Your task to perform on an android device: Go to network settings Image 0: 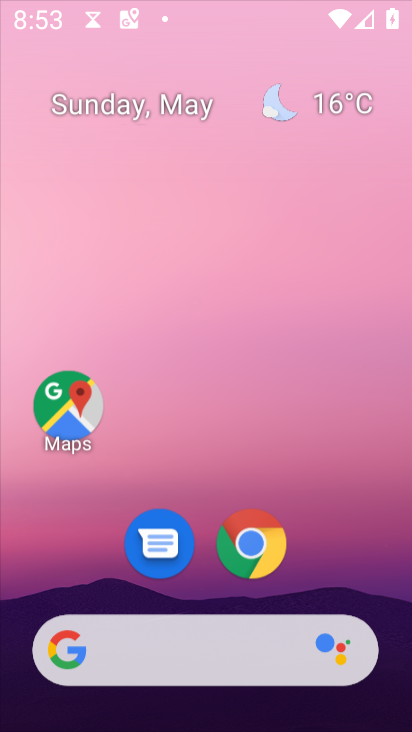
Step 0: drag from (319, 578) to (191, 169)
Your task to perform on an android device: Go to network settings Image 1: 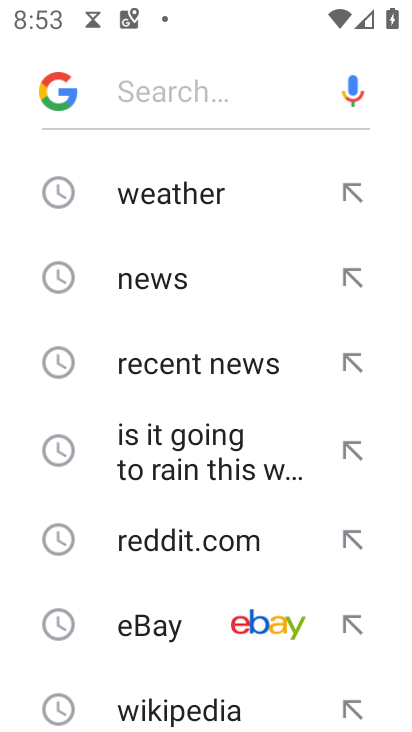
Step 1: press home button
Your task to perform on an android device: Go to network settings Image 2: 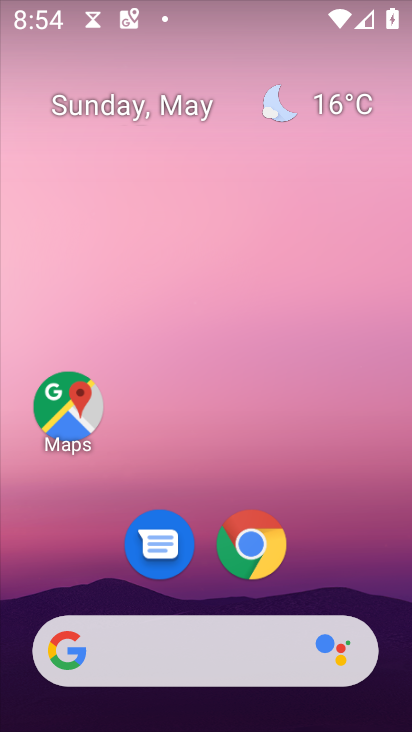
Step 2: drag from (320, 572) to (314, 144)
Your task to perform on an android device: Go to network settings Image 3: 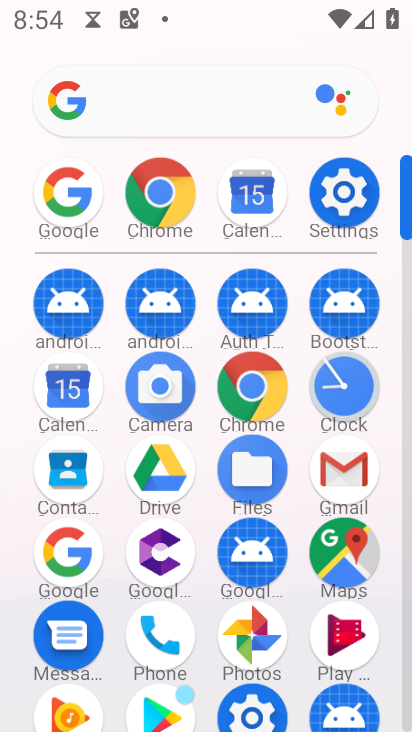
Step 3: click (344, 188)
Your task to perform on an android device: Go to network settings Image 4: 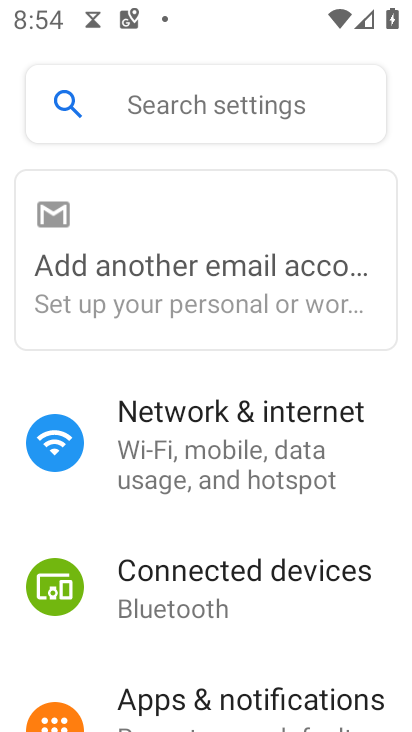
Step 4: click (143, 338)
Your task to perform on an android device: Go to network settings Image 5: 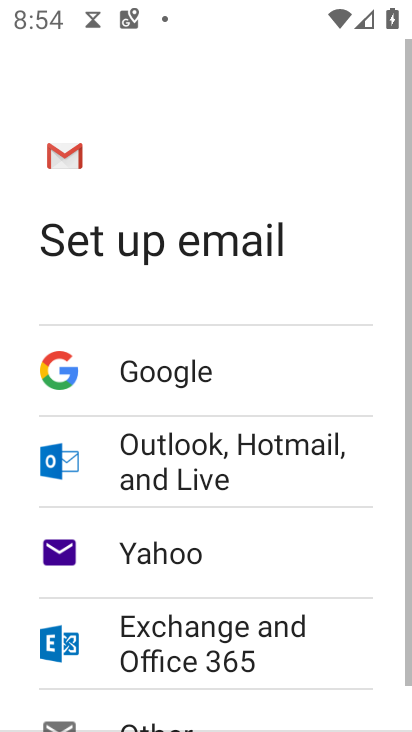
Step 5: press back button
Your task to perform on an android device: Go to network settings Image 6: 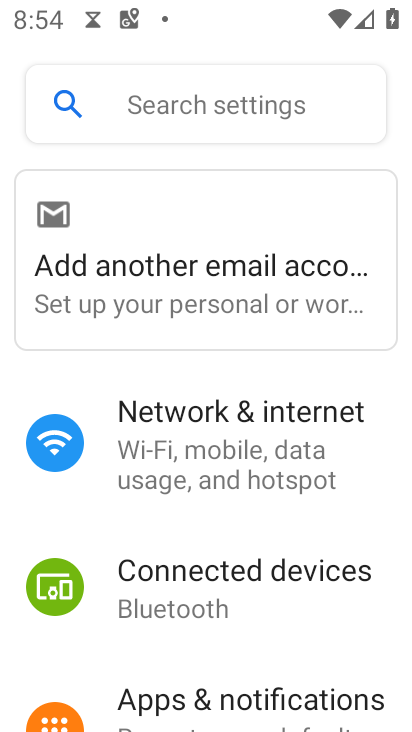
Step 6: click (260, 481)
Your task to perform on an android device: Go to network settings Image 7: 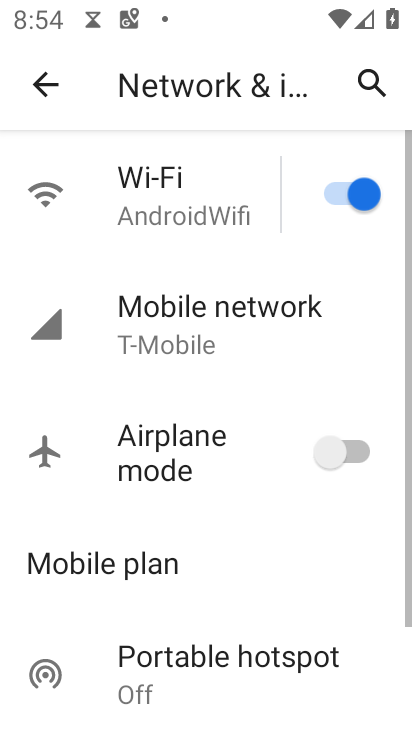
Step 7: drag from (286, 599) to (314, 264)
Your task to perform on an android device: Go to network settings Image 8: 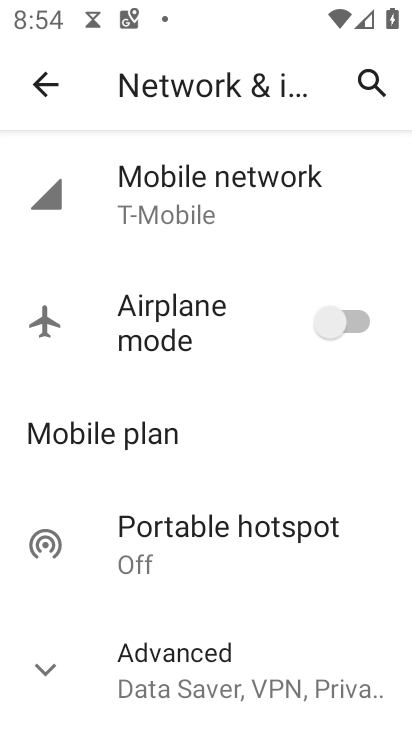
Step 8: click (262, 219)
Your task to perform on an android device: Go to network settings Image 9: 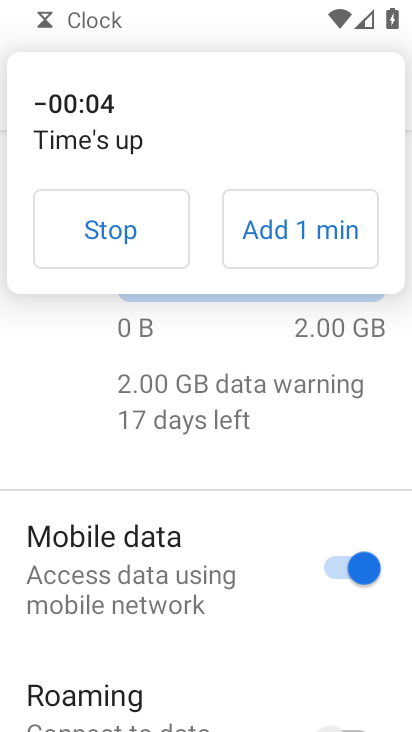
Step 9: drag from (191, 428) to (246, 229)
Your task to perform on an android device: Go to network settings Image 10: 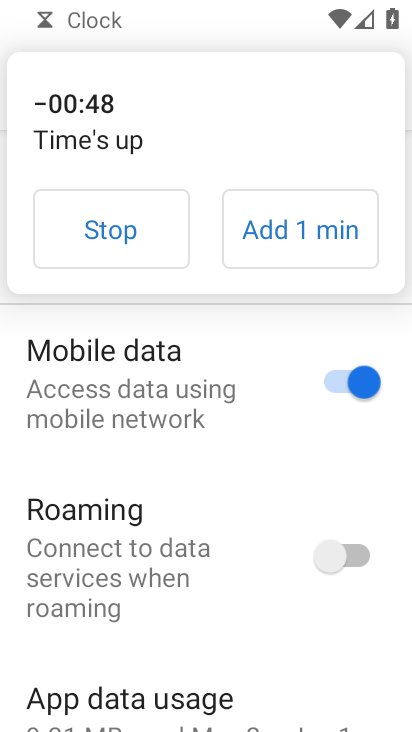
Step 10: click (156, 248)
Your task to perform on an android device: Go to network settings Image 11: 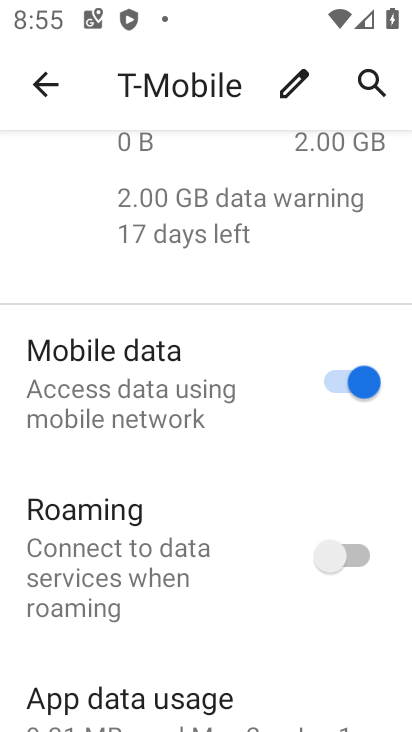
Step 11: task complete